Your task to perform on an android device: add a contact in the contacts app Image 0: 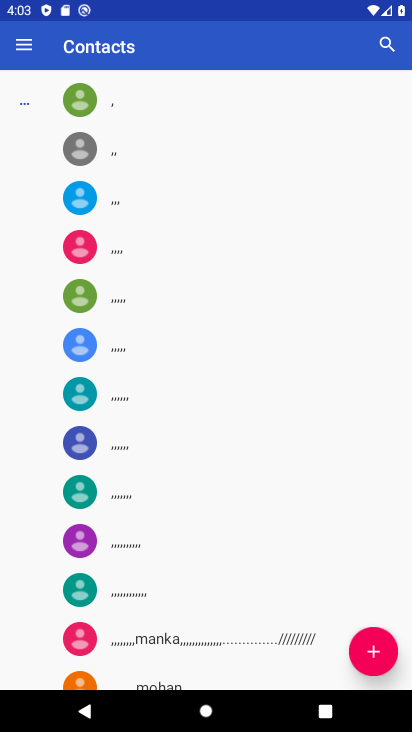
Step 0: press home button
Your task to perform on an android device: add a contact in the contacts app Image 1: 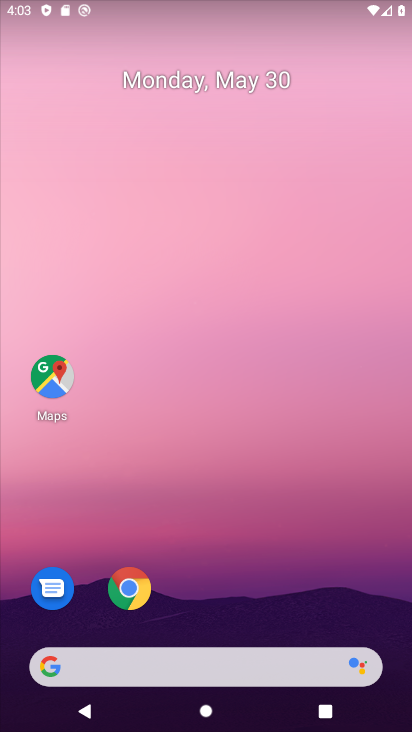
Step 1: drag from (313, 607) to (292, 172)
Your task to perform on an android device: add a contact in the contacts app Image 2: 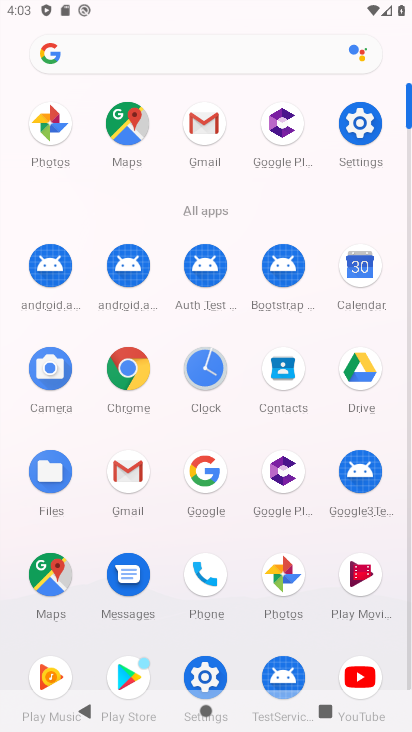
Step 2: click (277, 367)
Your task to perform on an android device: add a contact in the contacts app Image 3: 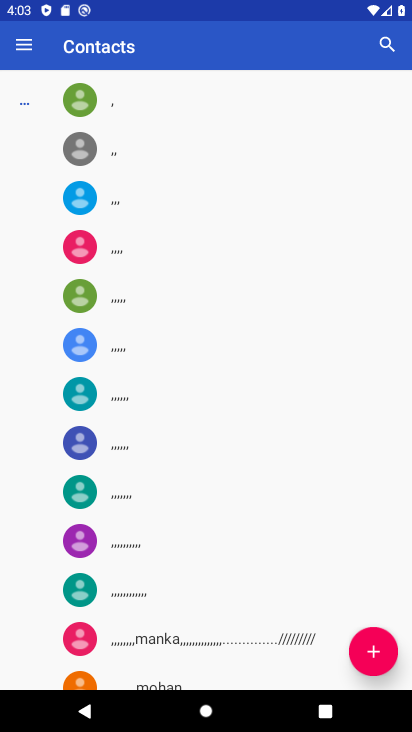
Step 3: task complete